Your task to perform on an android device: Search for the best rated tool bag on Lowe's. Image 0: 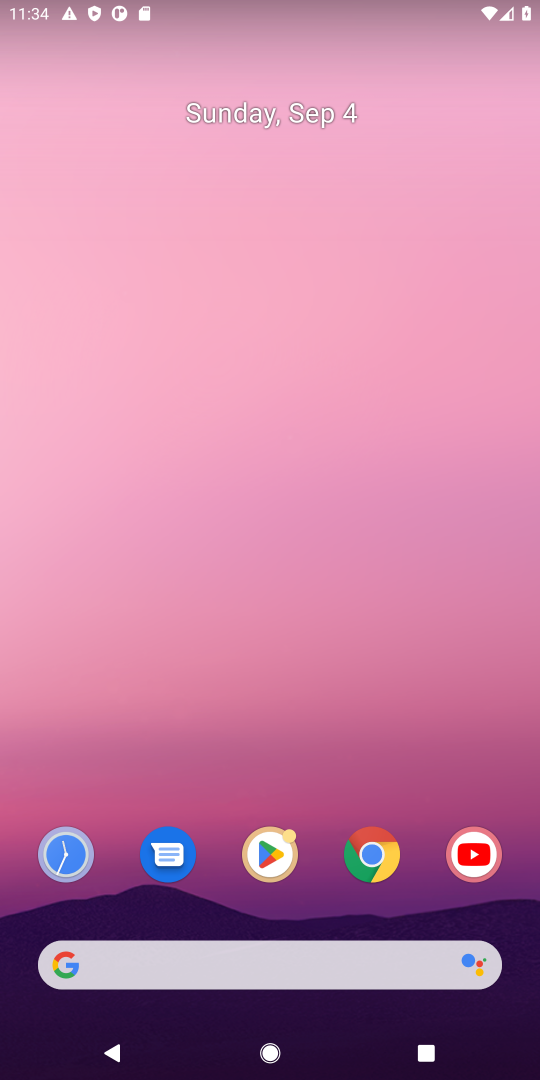
Step 0: press home button
Your task to perform on an android device: Search for the best rated tool bag on Lowe's. Image 1: 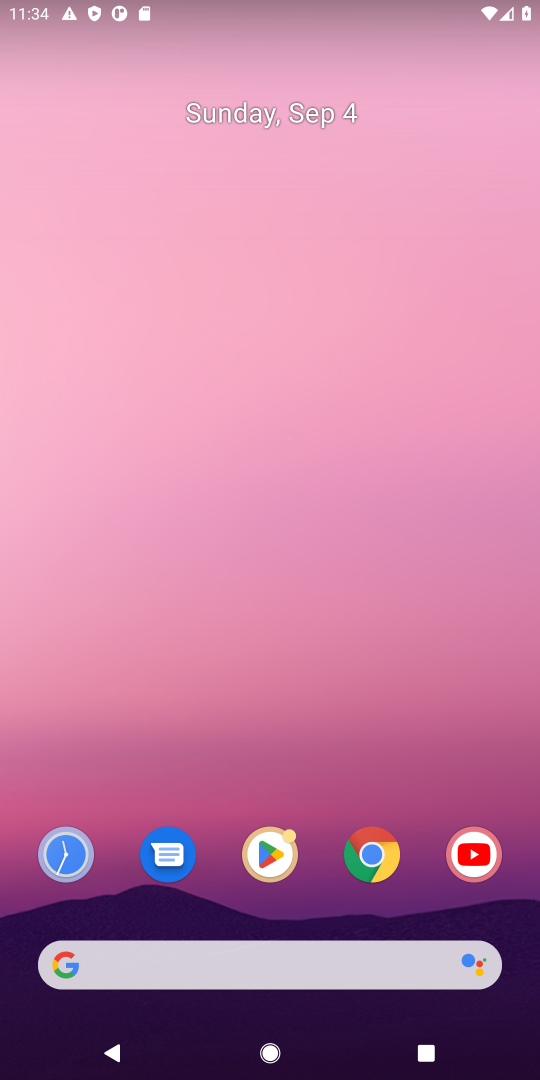
Step 1: click (326, 956)
Your task to perform on an android device: Search for the best rated tool bag on Lowe's. Image 2: 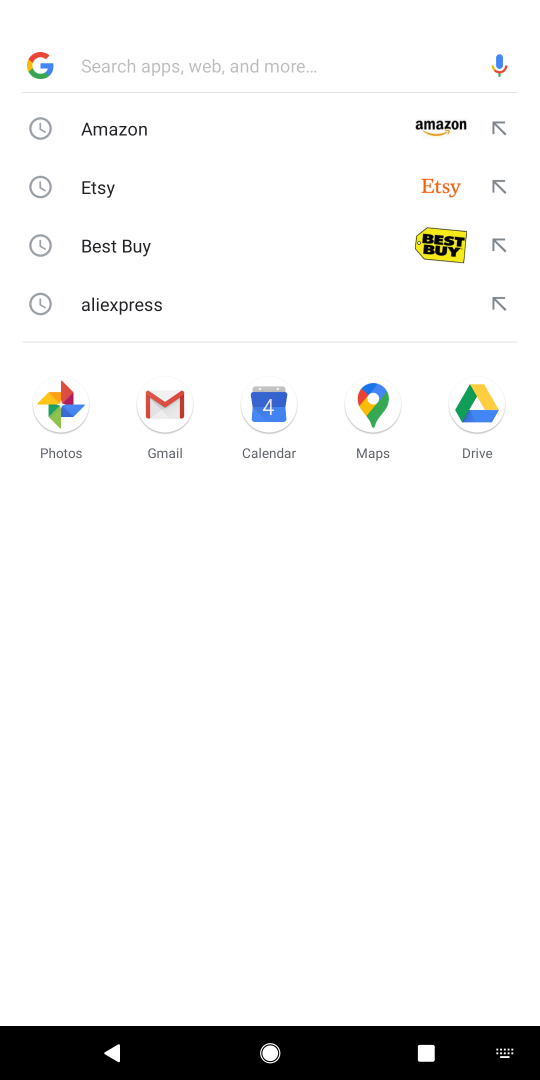
Step 2: press enter
Your task to perform on an android device: Search for the best rated tool bag on Lowe's. Image 3: 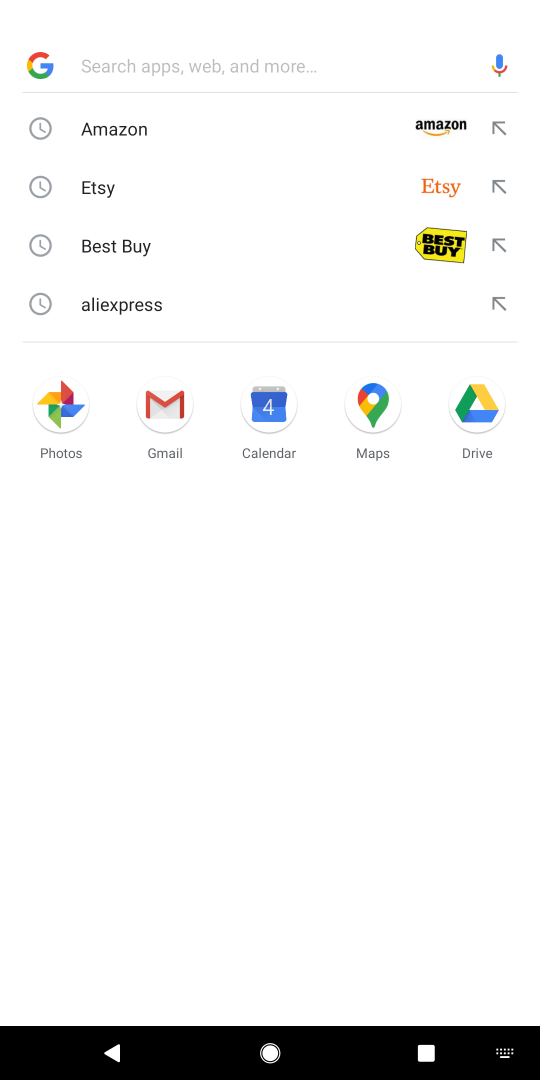
Step 3: type "lowes"
Your task to perform on an android device: Search for the best rated tool bag on Lowe's. Image 4: 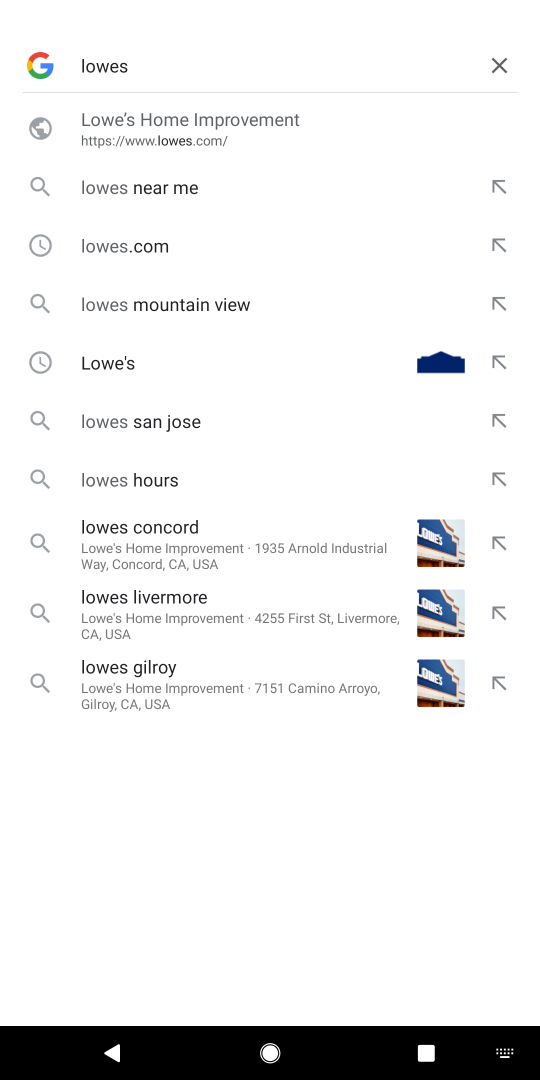
Step 4: click (202, 124)
Your task to perform on an android device: Search for the best rated tool bag on Lowe's. Image 5: 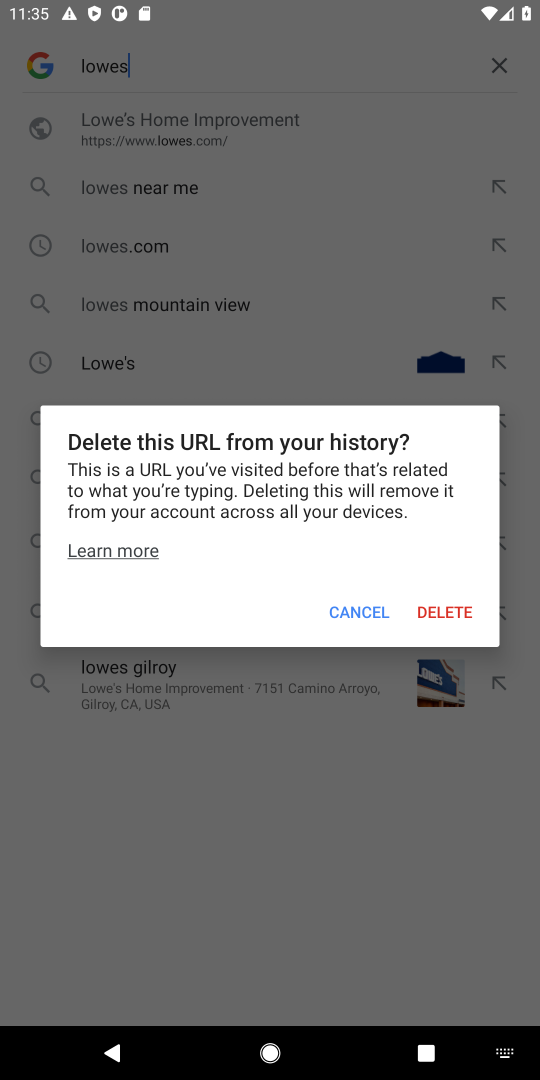
Step 5: click (343, 612)
Your task to perform on an android device: Search for the best rated tool bag on Lowe's. Image 6: 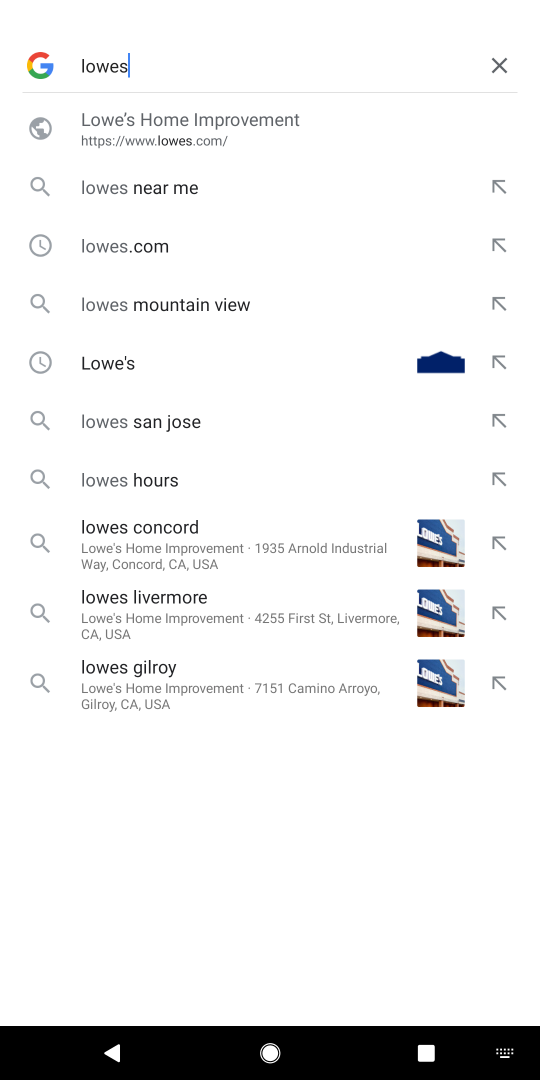
Step 6: click (132, 142)
Your task to perform on an android device: Search for the best rated tool bag on Lowe's. Image 7: 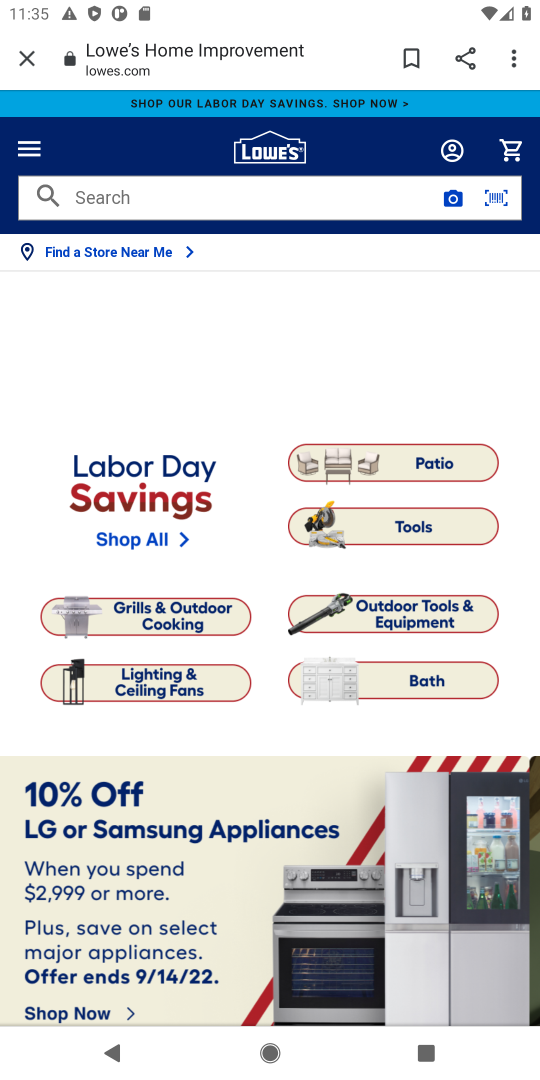
Step 7: click (232, 198)
Your task to perform on an android device: Search for the best rated tool bag on Lowe's. Image 8: 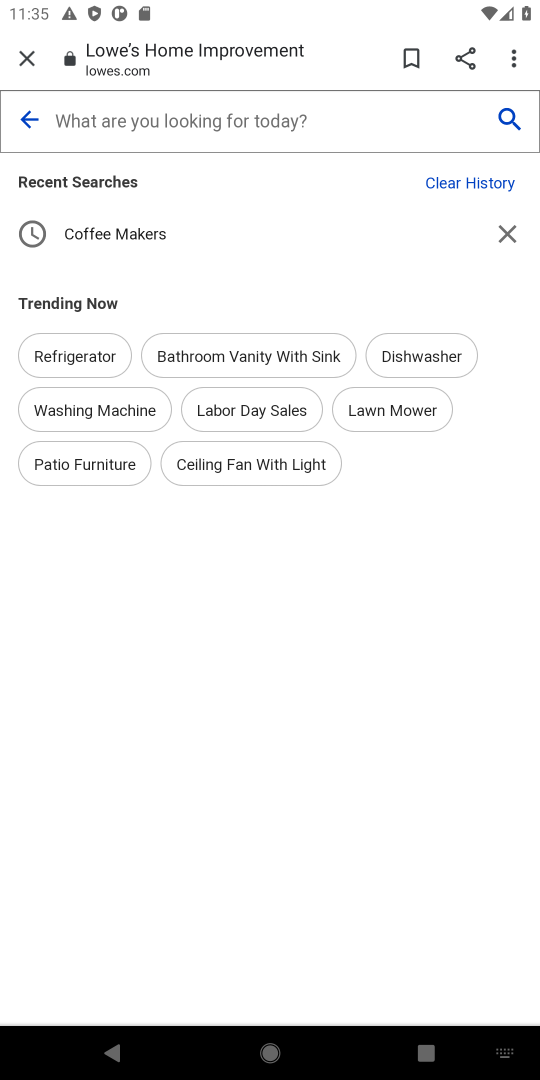
Step 8: type "best rated tool bag"
Your task to perform on an android device: Search for the best rated tool bag on Lowe's. Image 9: 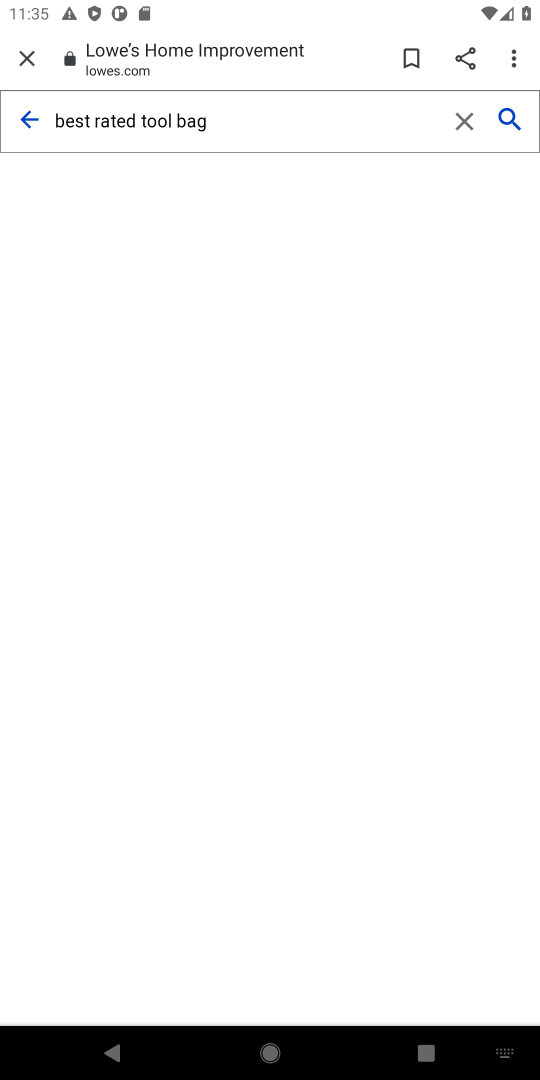
Step 9: click (500, 121)
Your task to perform on an android device: Search for the best rated tool bag on Lowe's. Image 10: 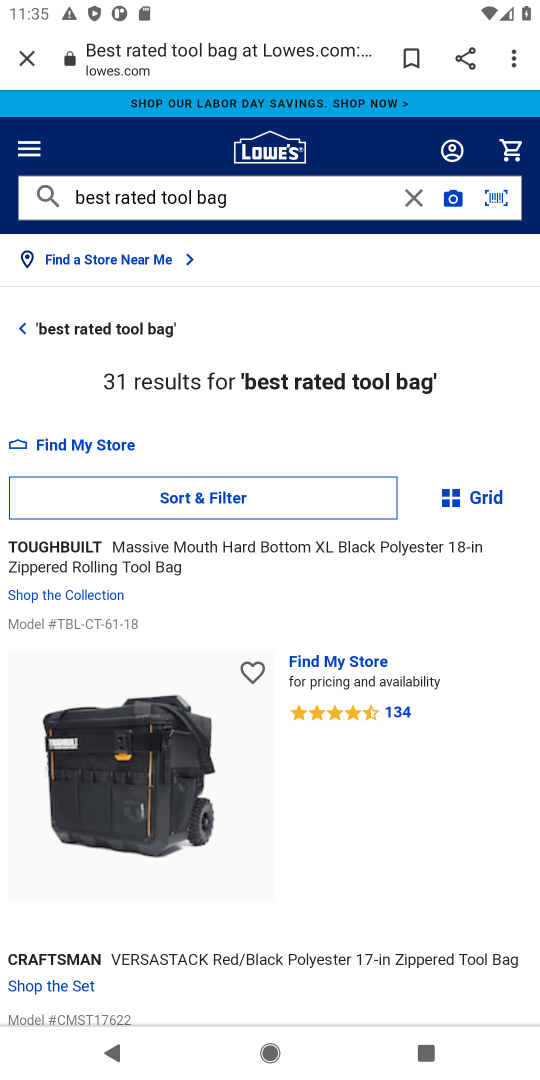
Step 10: task complete